Your task to perform on an android device: Open maps Image 0: 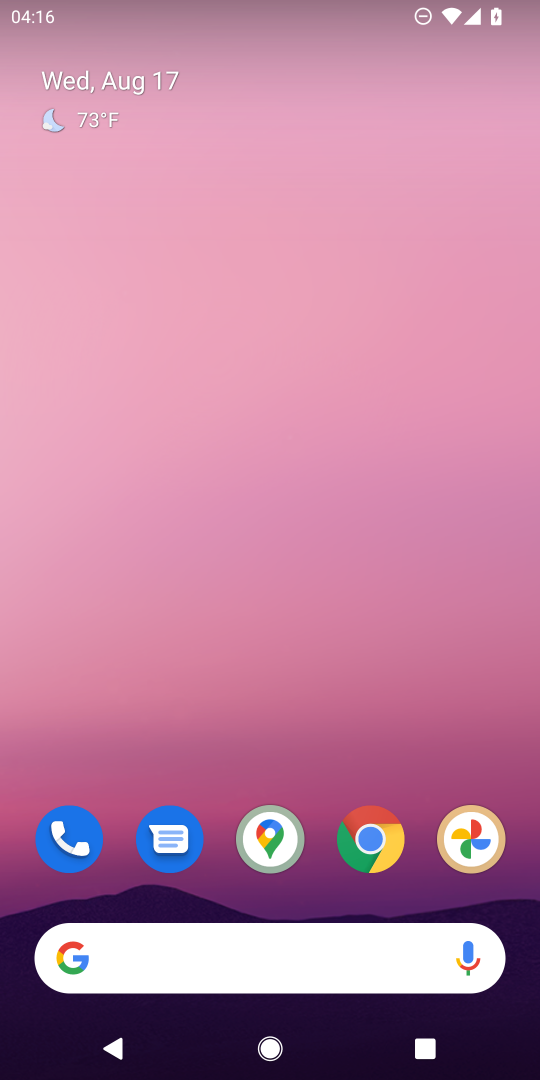
Step 0: drag from (307, 802) to (331, 246)
Your task to perform on an android device: Open maps Image 1: 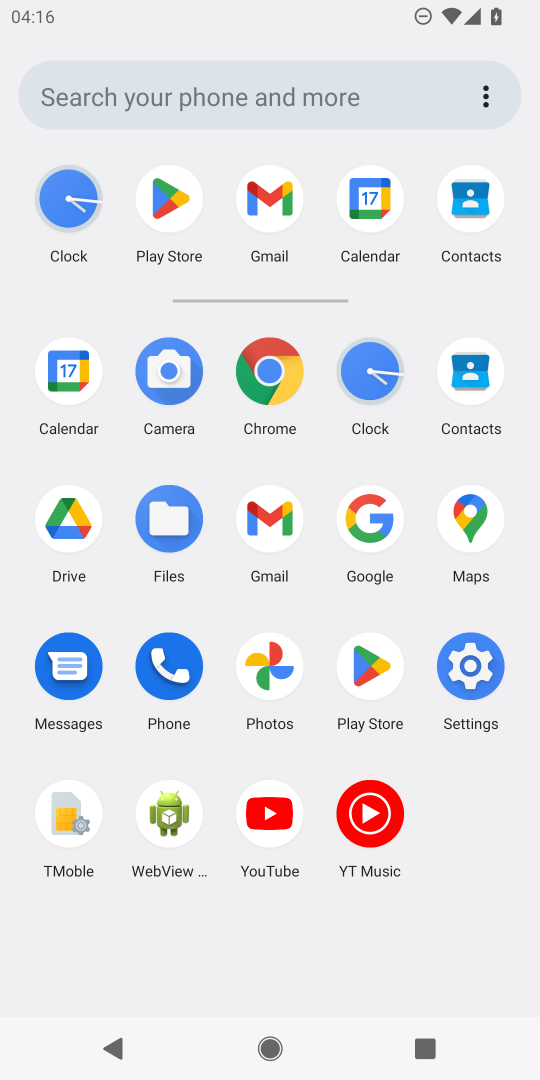
Step 1: click (472, 521)
Your task to perform on an android device: Open maps Image 2: 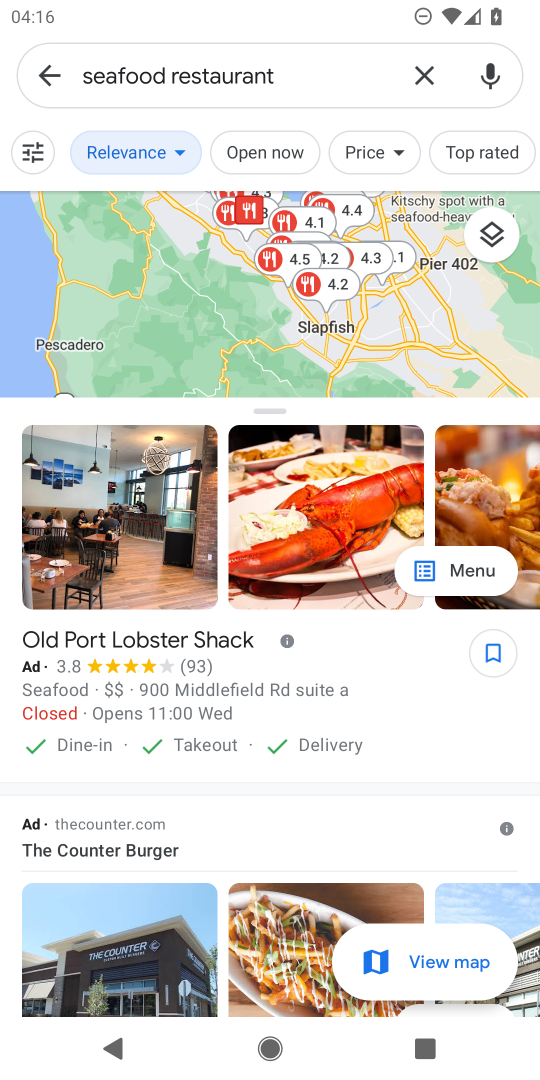
Step 2: task complete